Your task to perform on an android device: manage bookmarks in the chrome app Image 0: 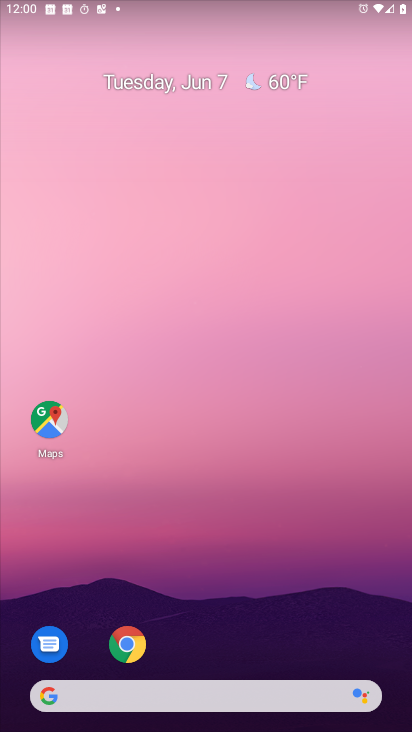
Step 0: click (120, 649)
Your task to perform on an android device: manage bookmarks in the chrome app Image 1: 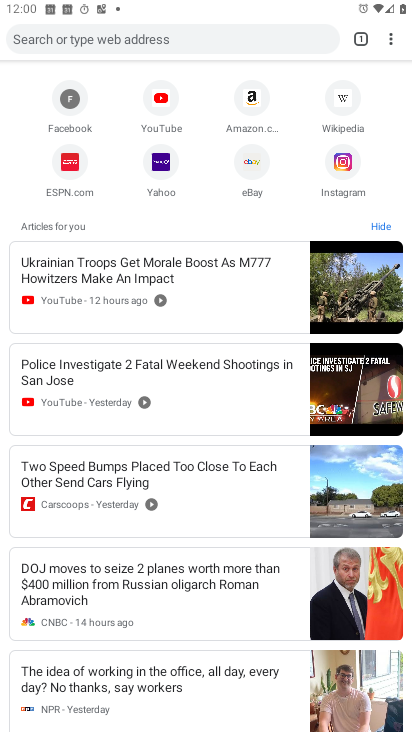
Step 1: click (384, 42)
Your task to perform on an android device: manage bookmarks in the chrome app Image 2: 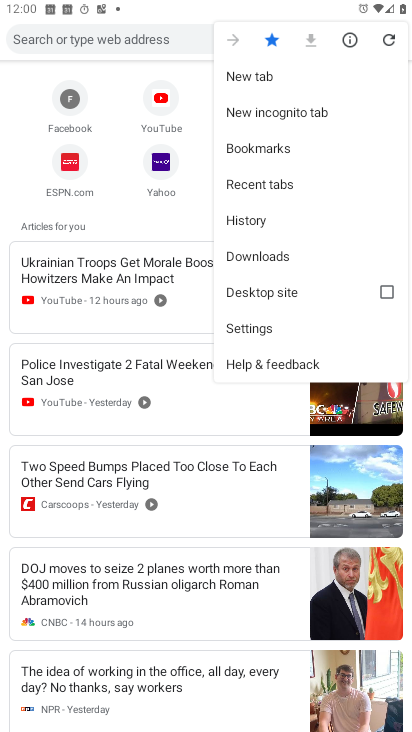
Step 2: click (276, 143)
Your task to perform on an android device: manage bookmarks in the chrome app Image 3: 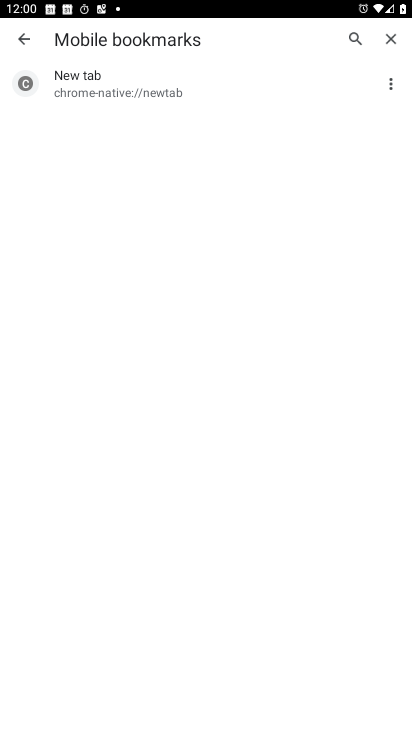
Step 3: click (389, 92)
Your task to perform on an android device: manage bookmarks in the chrome app Image 4: 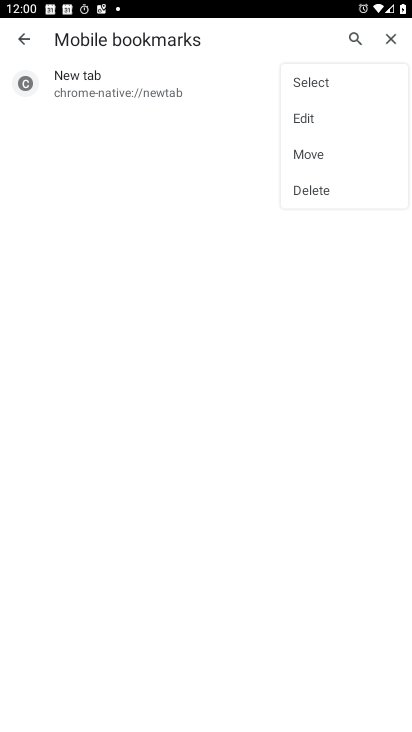
Step 4: click (312, 187)
Your task to perform on an android device: manage bookmarks in the chrome app Image 5: 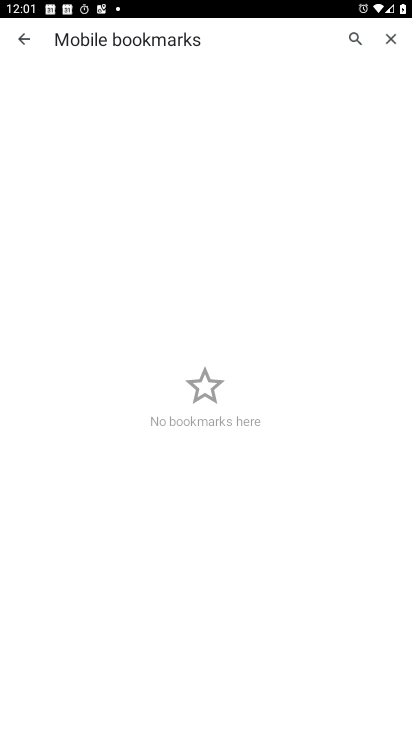
Step 5: task complete